Your task to perform on an android device: Open Maps and search for coffee Image 0: 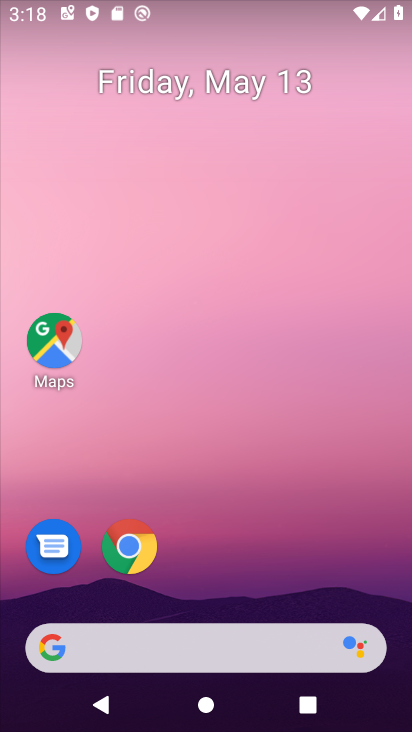
Step 0: drag from (220, 577) to (245, 285)
Your task to perform on an android device: Open Maps and search for coffee Image 1: 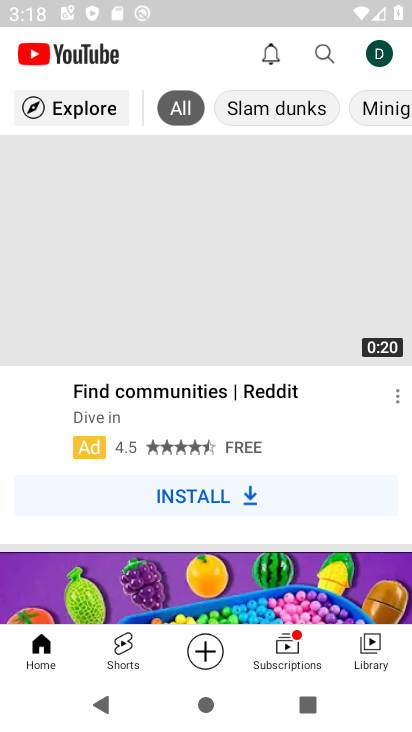
Step 1: click (245, 285)
Your task to perform on an android device: Open Maps and search for coffee Image 2: 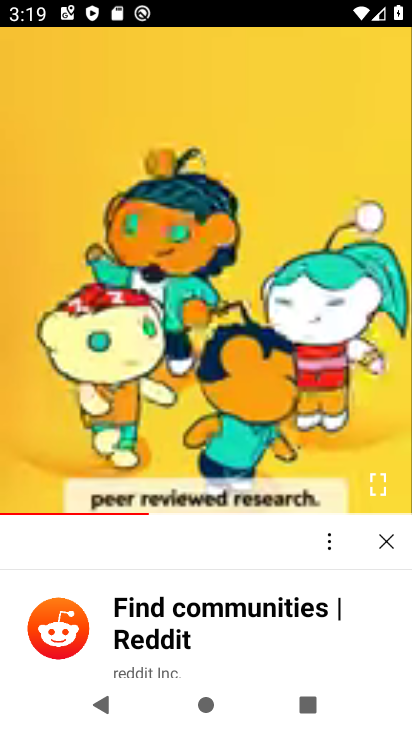
Step 2: press home button
Your task to perform on an android device: Open Maps and search for coffee Image 3: 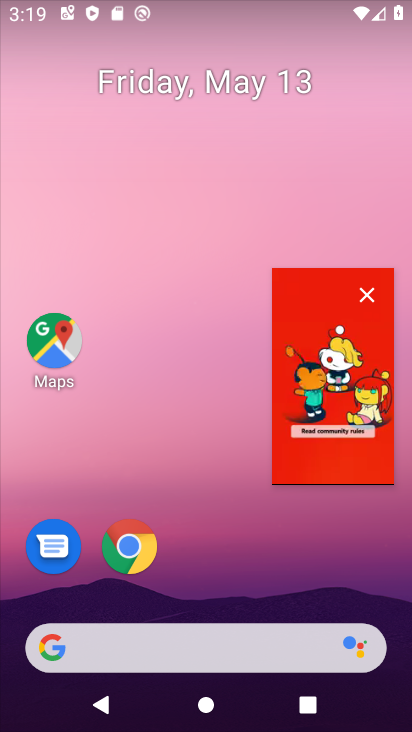
Step 3: click (51, 341)
Your task to perform on an android device: Open Maps and search for coffee Image 4: 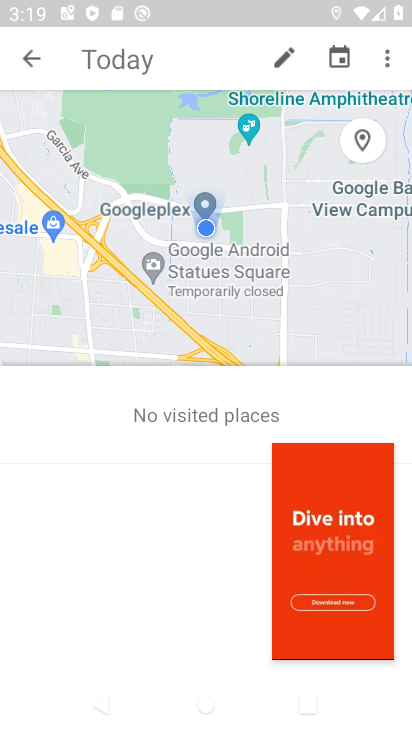
Step 4: click (54, 62)
Your task to perform on an android device: Open Maps and search for coffee Image 5: 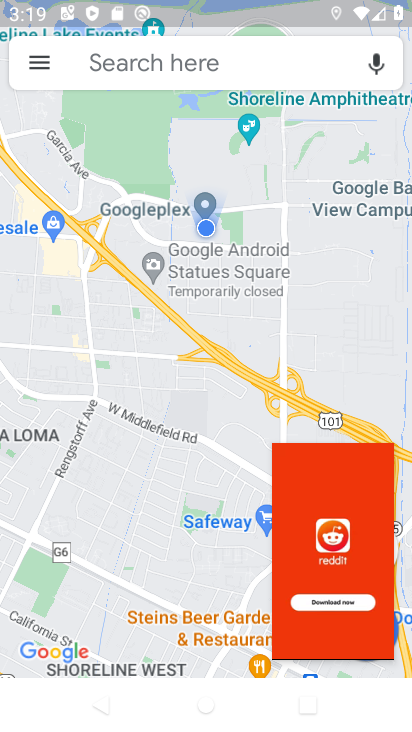
Step 5: drag from (360, 490) to (54, 728)
Your task to perform on an android device: Open Maps and search for coffee Image 6: 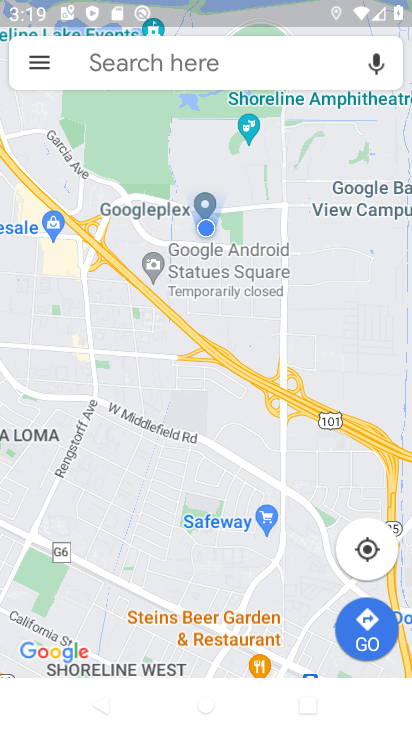
Step 6: click (41, 77)
Your task to perform on an android device: Open Maps and search for coffee Image 7: 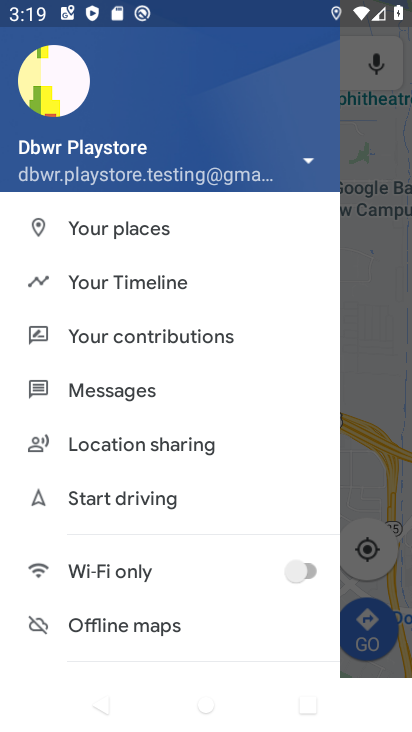
Step 7: click (387, 240)
Your task to perform on an android device: Open Maps and search for coffee Image 8: 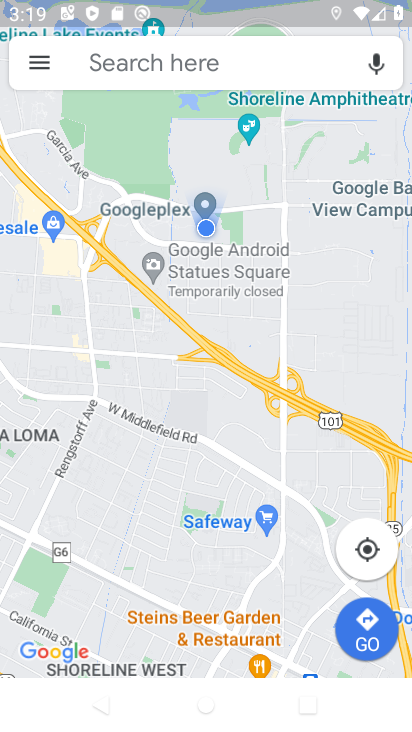
Step 8: click (202, 61)
Your task to perform on an android device: Open Maps and search for coffee Image 9: 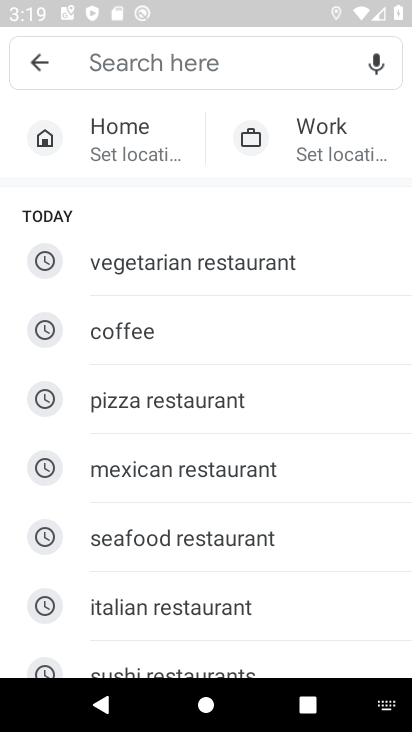
Step 9: click (242, 345)
Your task to perform on an android device: Open Maps and search for coffee Image 10: 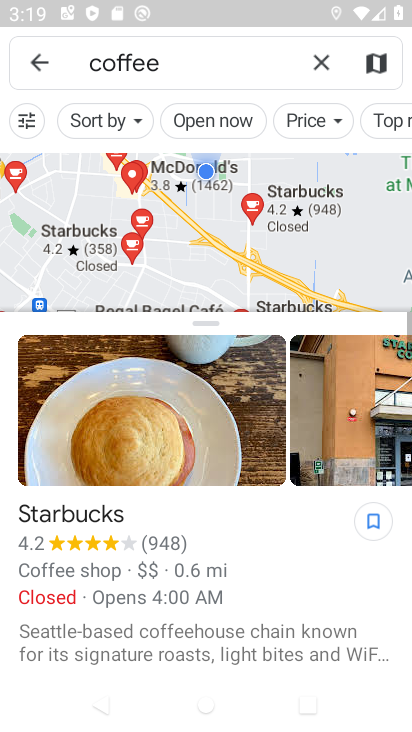
Step 10: task complete